Your task to perform on an android device: toggle show notifications on the lock screen Image 0: 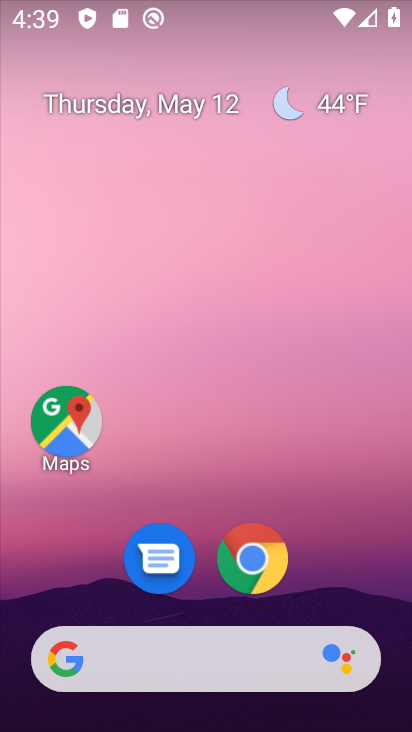
Step 0: drag from (349, 522) to (240, 11)
Your task to perform on an android device: toggle show notifications on the lock screen Image 1: 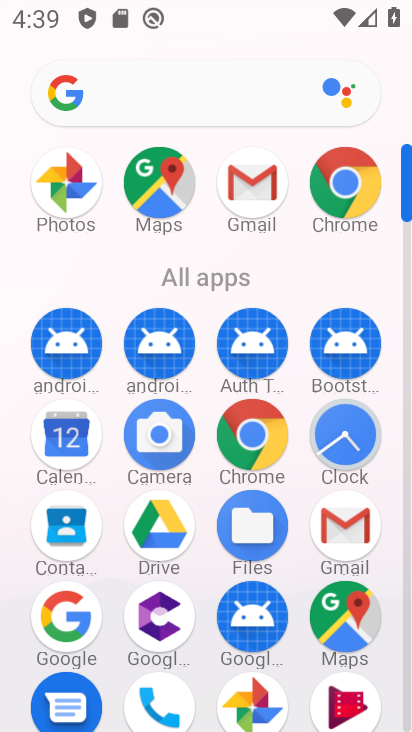
Step 1: drag from (21, 549) to (15, 205)
Your task to perform on an android device: toggle show notifications on the lock screen Image 2: 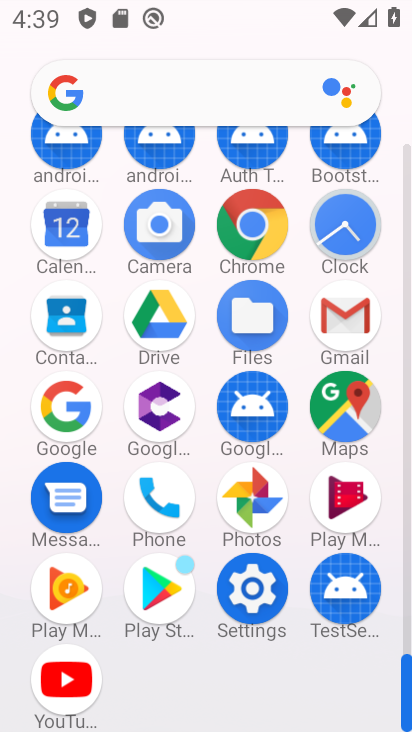
Step 2: click (253, 582)
Your task to perform on an android device: toggle show notifications on the lock screen Image 3: 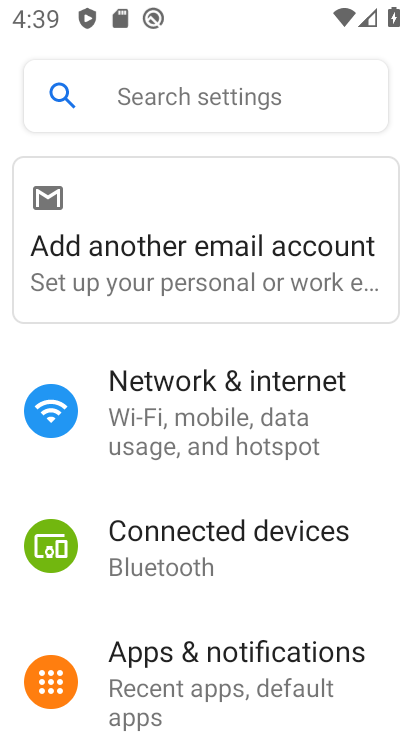
Step 3: click (245, 658)
Your task to perform on an android device: toggle show notifications on the lock screen Image 4: 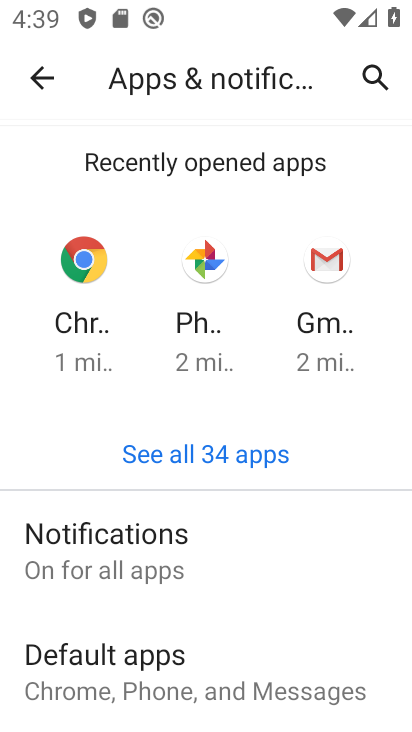
Step 4: click (211, 545)
Your task to perform on an android device: toggle show notifications on the lock screen Image 5: 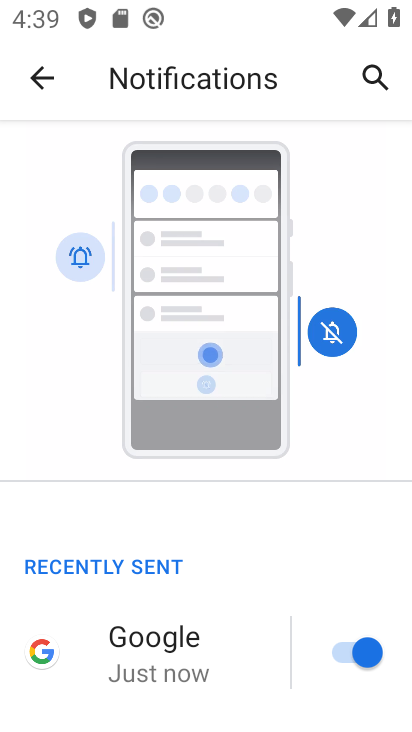
Step 5: drag from (216, 586) to (196, 224)
Your task to perform on an android device: toggle show notifications on the lock screen Image 6: 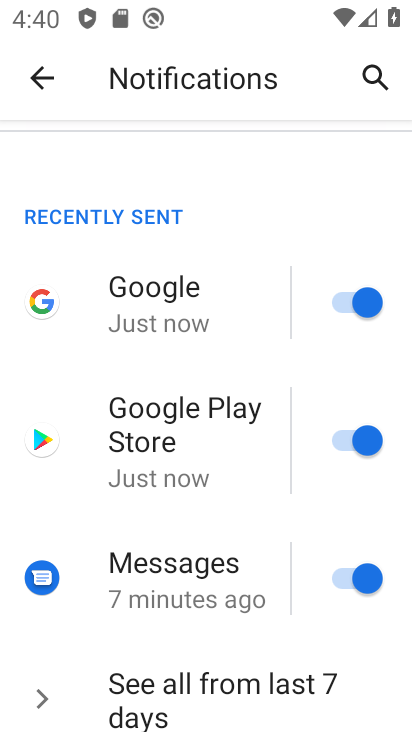
Step 6: drag from (181, 545) to (189, 222)
Your task to perform on an android device: toggle show notifications on the lock screen Image 7: 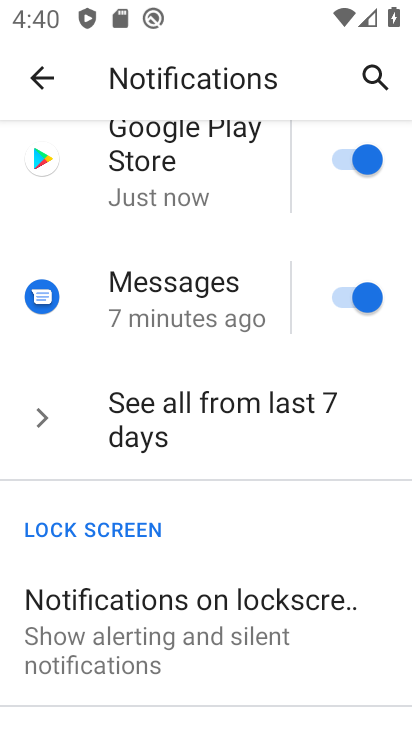
Step 7: drag from (218, 608) to (210, 306)
Your task to perform on an android device: toggle show notifications on the lock screen Image 8: 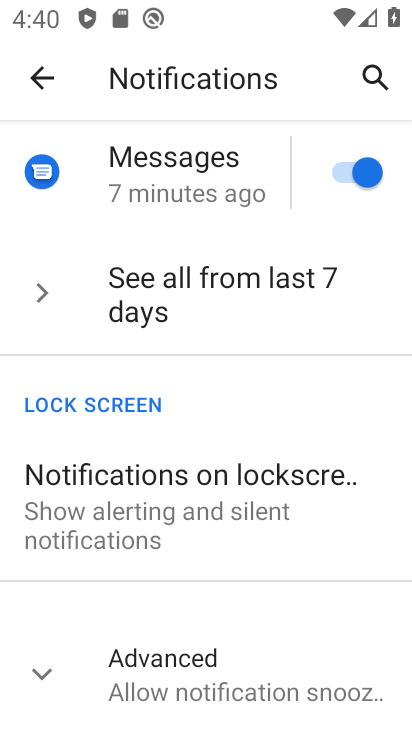
Step 8: click (190, 514)
Your task to perform on an android device: toggle show notifications on the lock screen Image 9: 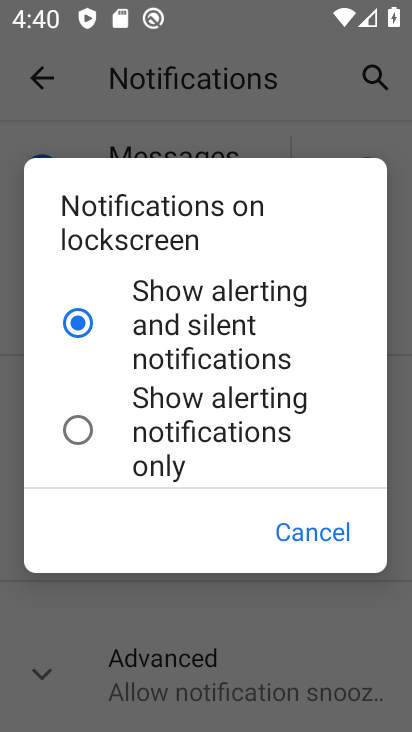
Step 9: click (229, 298)
Your task to perform on an android device: toggle show notifications on the lock screen Image 10: 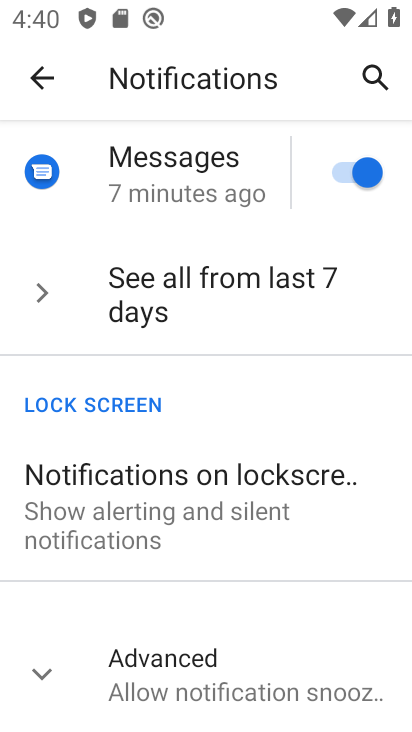
Step 10: click (81, 669)
Your task to perform on an android device: toggle show notifications on the lock screen Image 11: 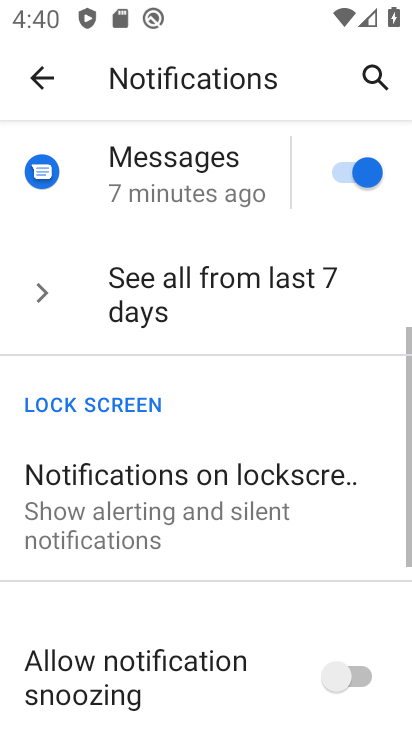
Step 11: click (148, 485)
Your task to perform on an android device: toggle show notifications on the lock screen Image 12: 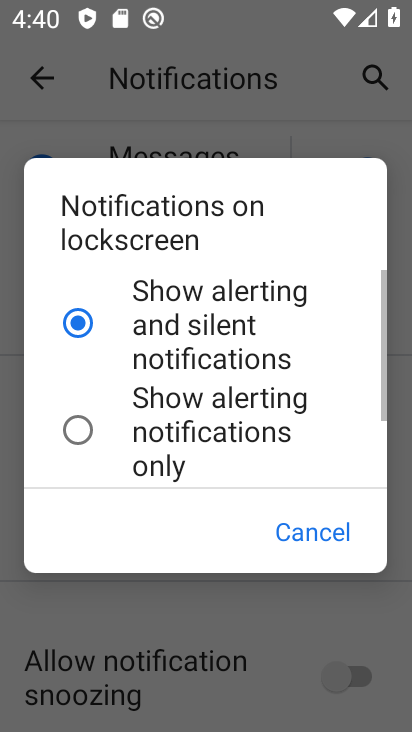
Step 12: click (152, 432)
Your task to perform on an android device: toggle show notifications on the lock screen Image 13: 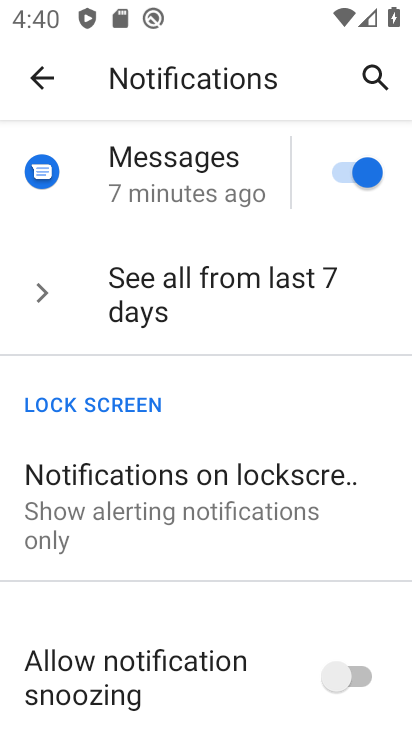
Step 13: task complete